Your task to perform on an android device: install app "eBay: The shopping marketplace" Image 0: 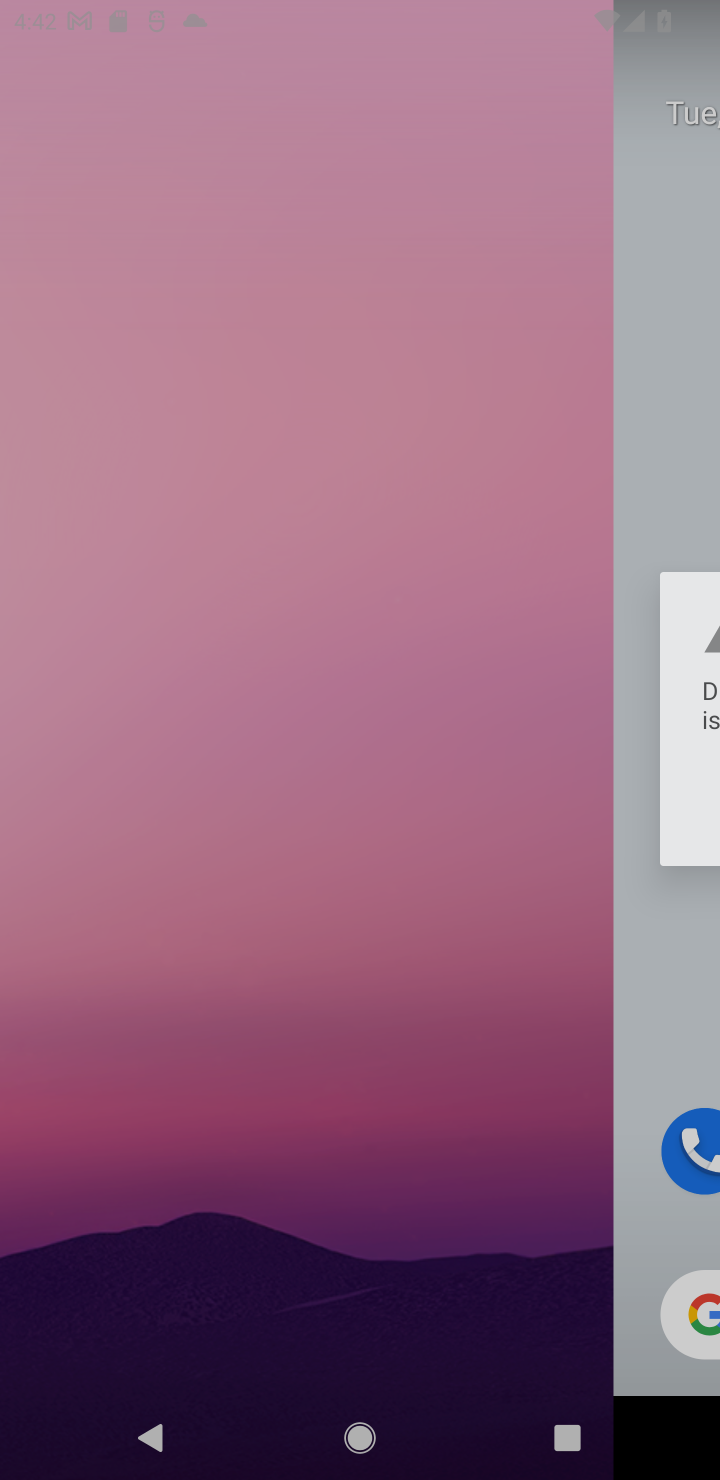
Step 0: press home button
Your task to perform on an android device: install app "eBay: The shopping marketplace" Image 1: 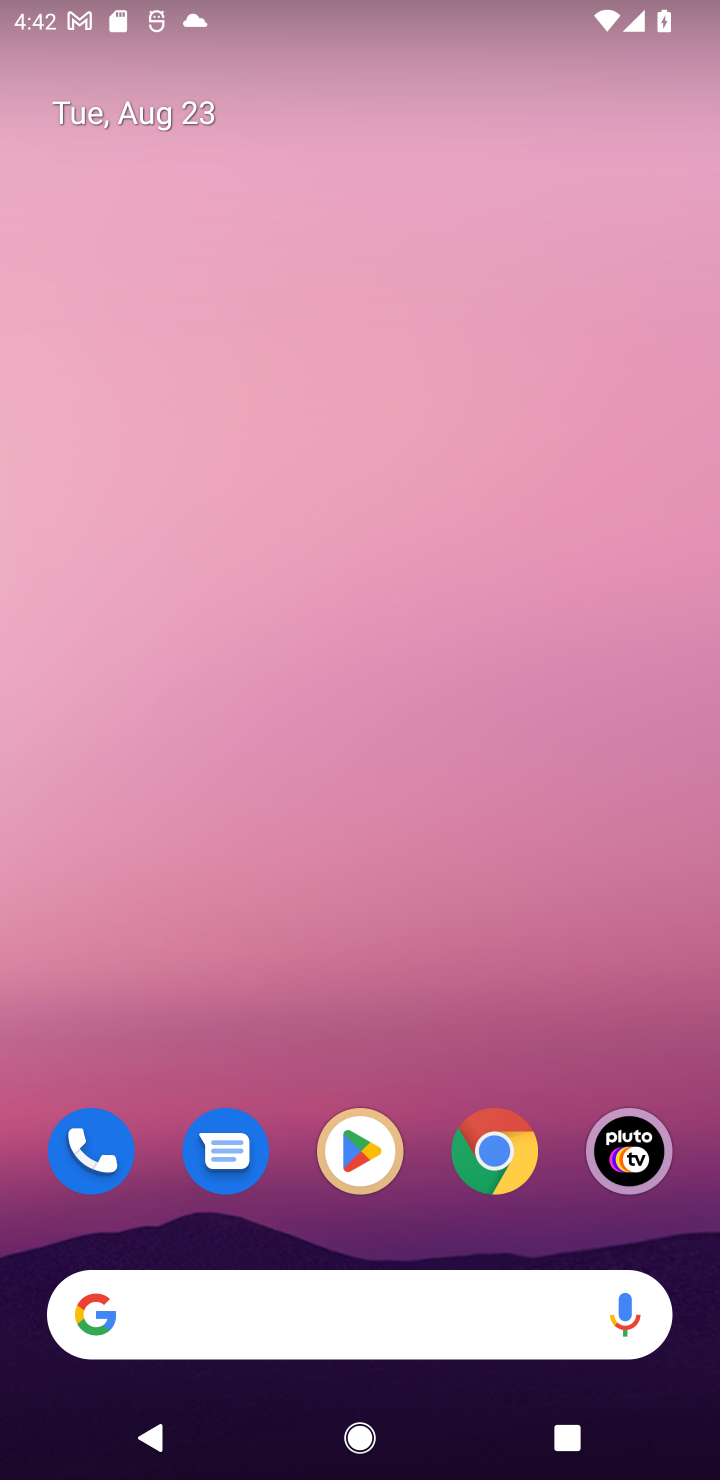
Step 1: click (349, 1137)
Your task to perform on an android device: install app "eBay: The shopping marketplace" Image 2: 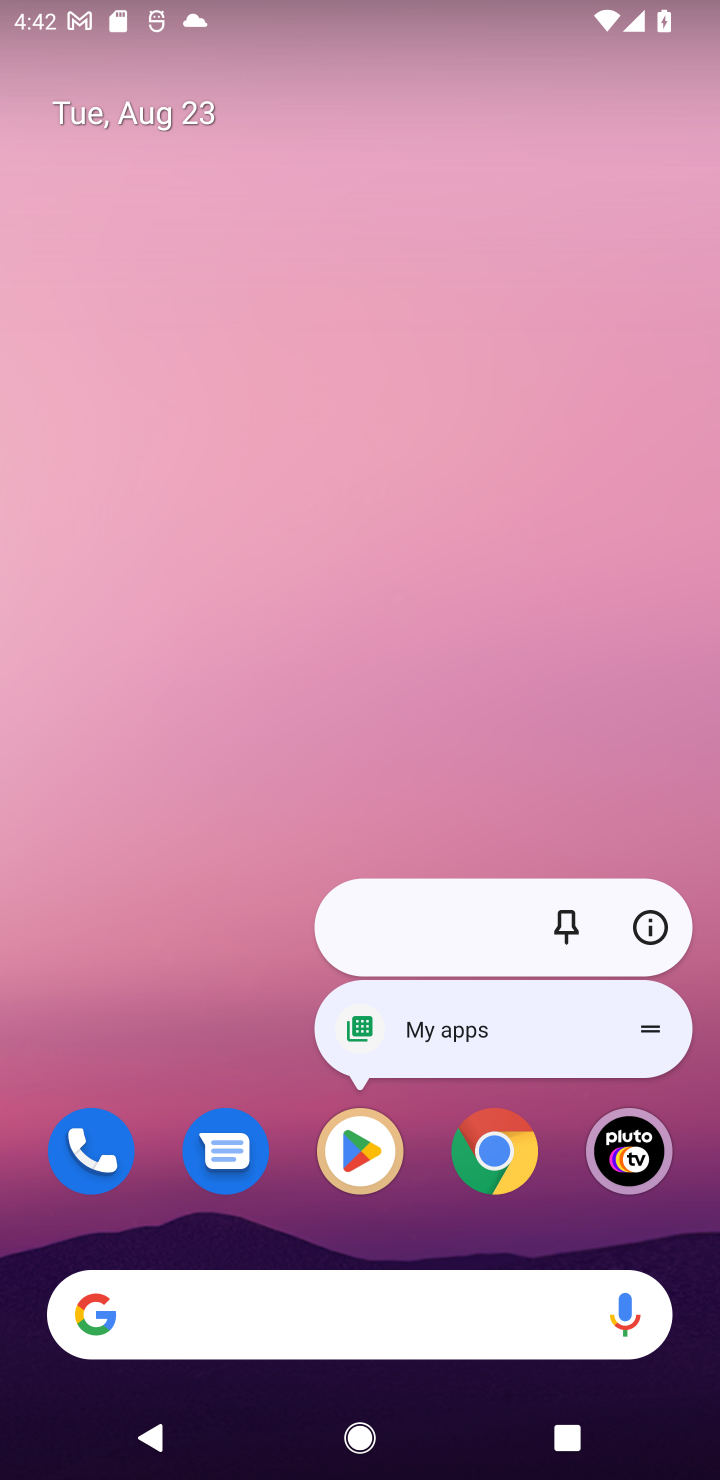
Step 2: click (347, 1157)
Your task to perform on an android device: install app "eBay: The shopping marketplace" Image 3: 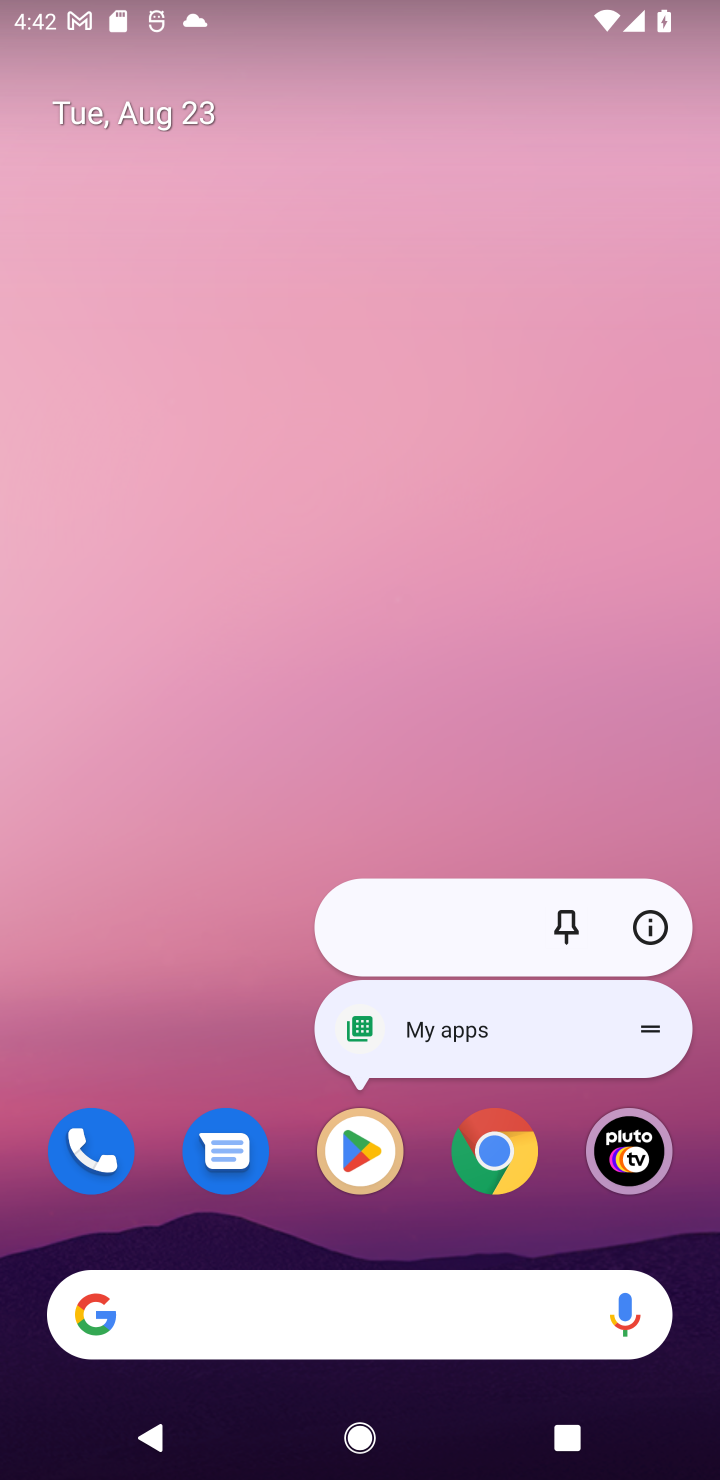
Step 3: click (361, 1148)
Your task to perform on an android device: install app "eBay: The shopping marketplace" Image 4: 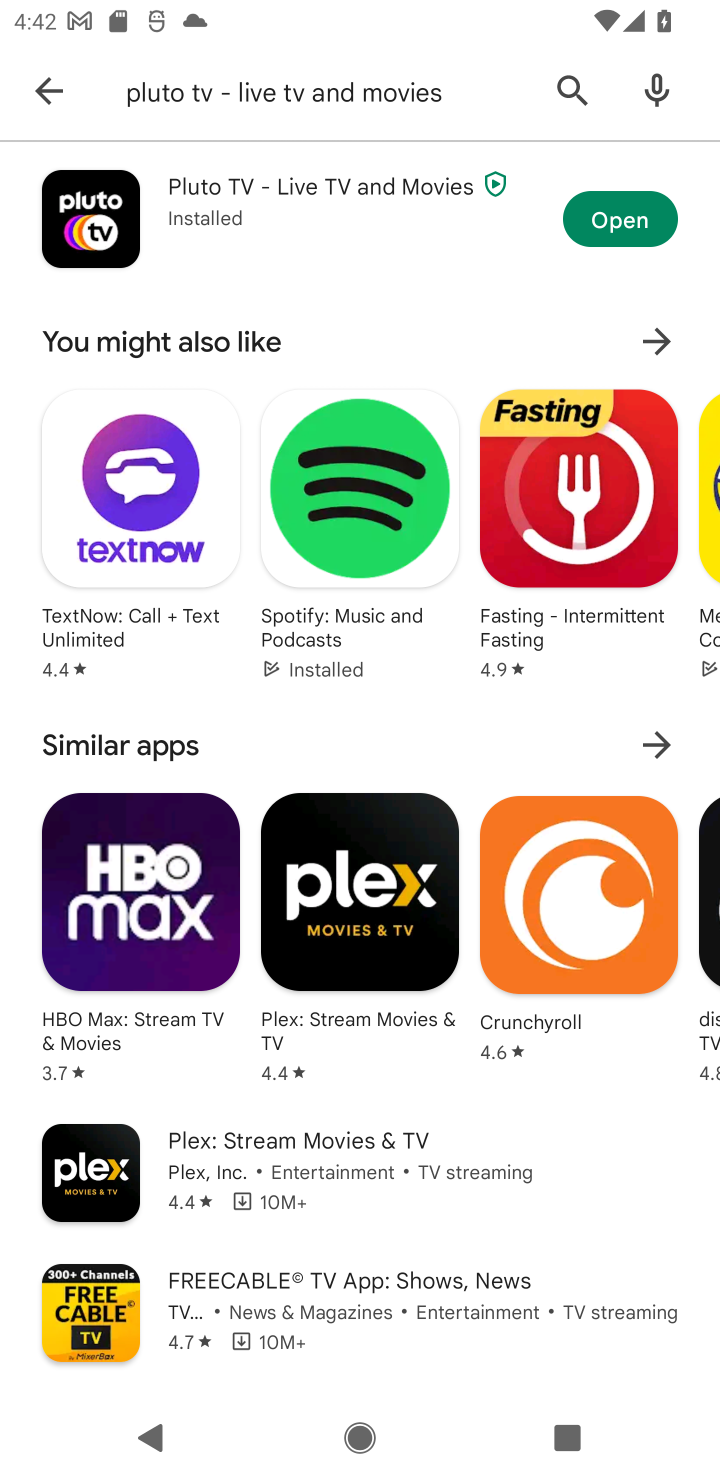
Step 4: click (572, 75)
Your task to perform on an android device: install app "eBay: The shopping marketplace" Image 5: 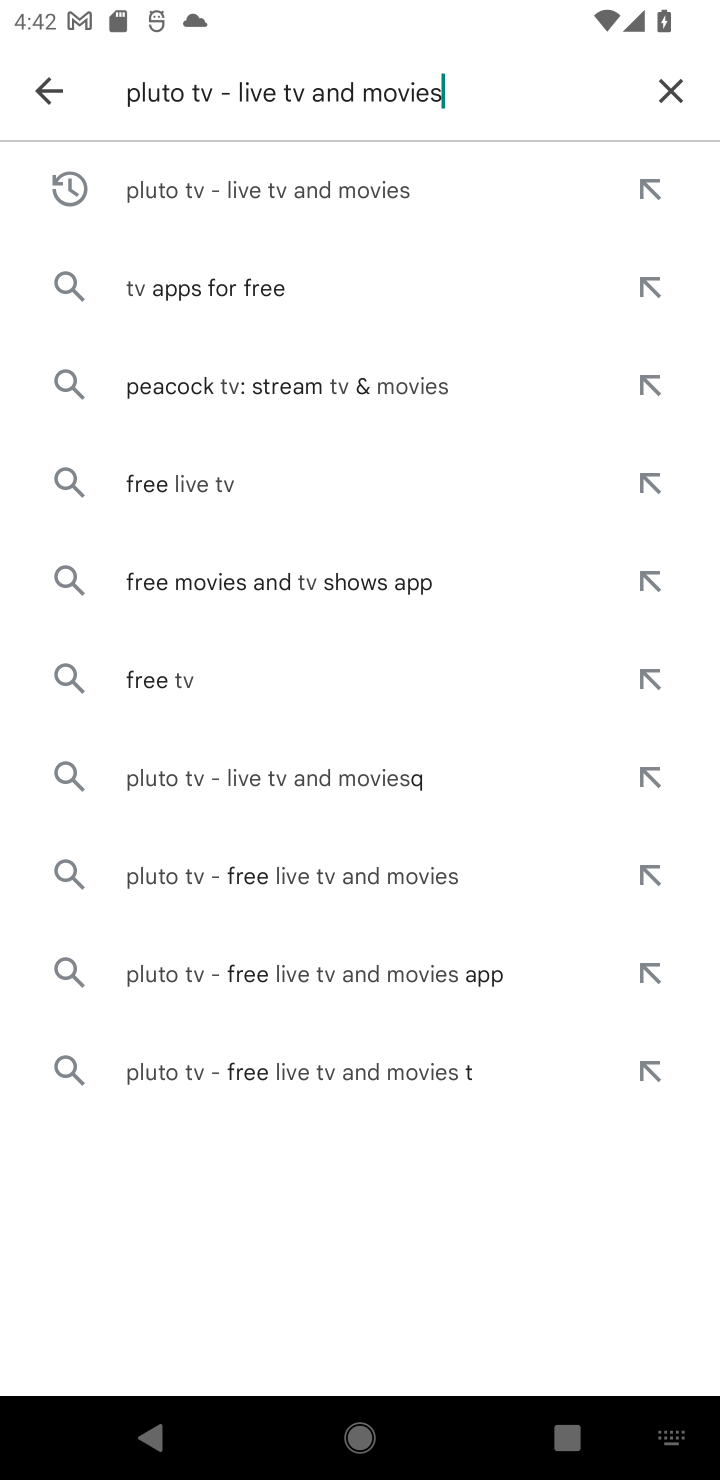
Step 5: click (673, 70)
Your task to perform on an android device: install app "eBay: The shopping marketplace" Image 6: 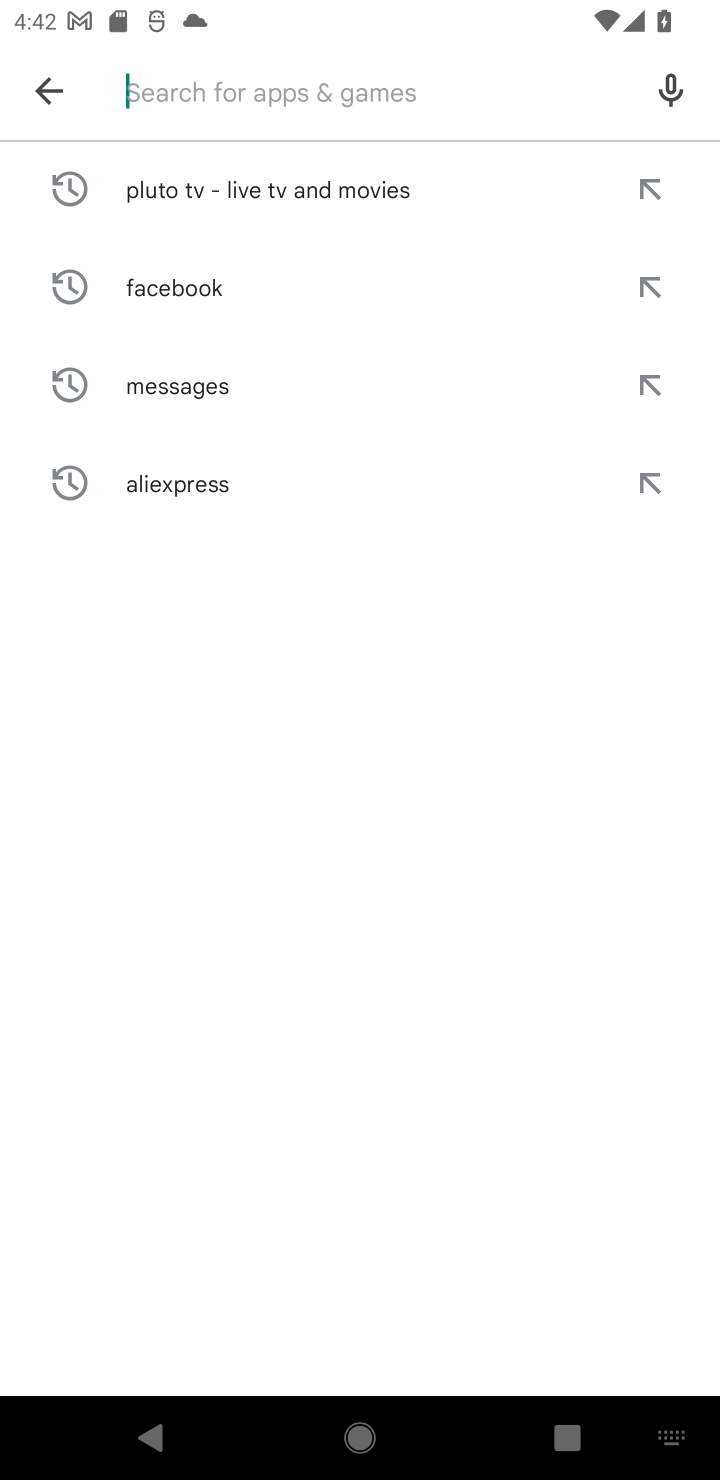
Step 6: type "eBay: The shopping marketplace"
Your task to perform on an android device: install app "eBay: The shopping marketplace" Image 7: 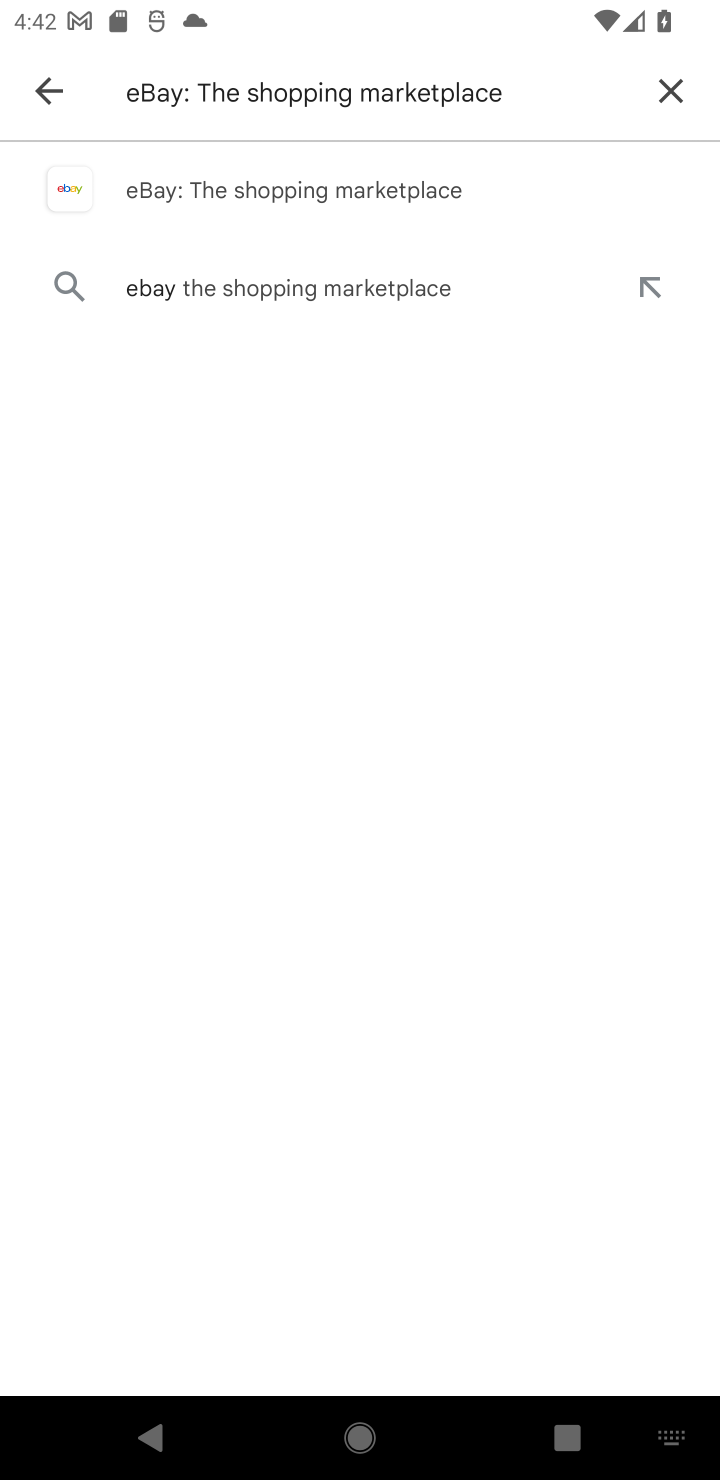
Step 7: click (378, 185)
Your task to perform on an android device: install app "eBay: The shopping marketplace" Image 8: 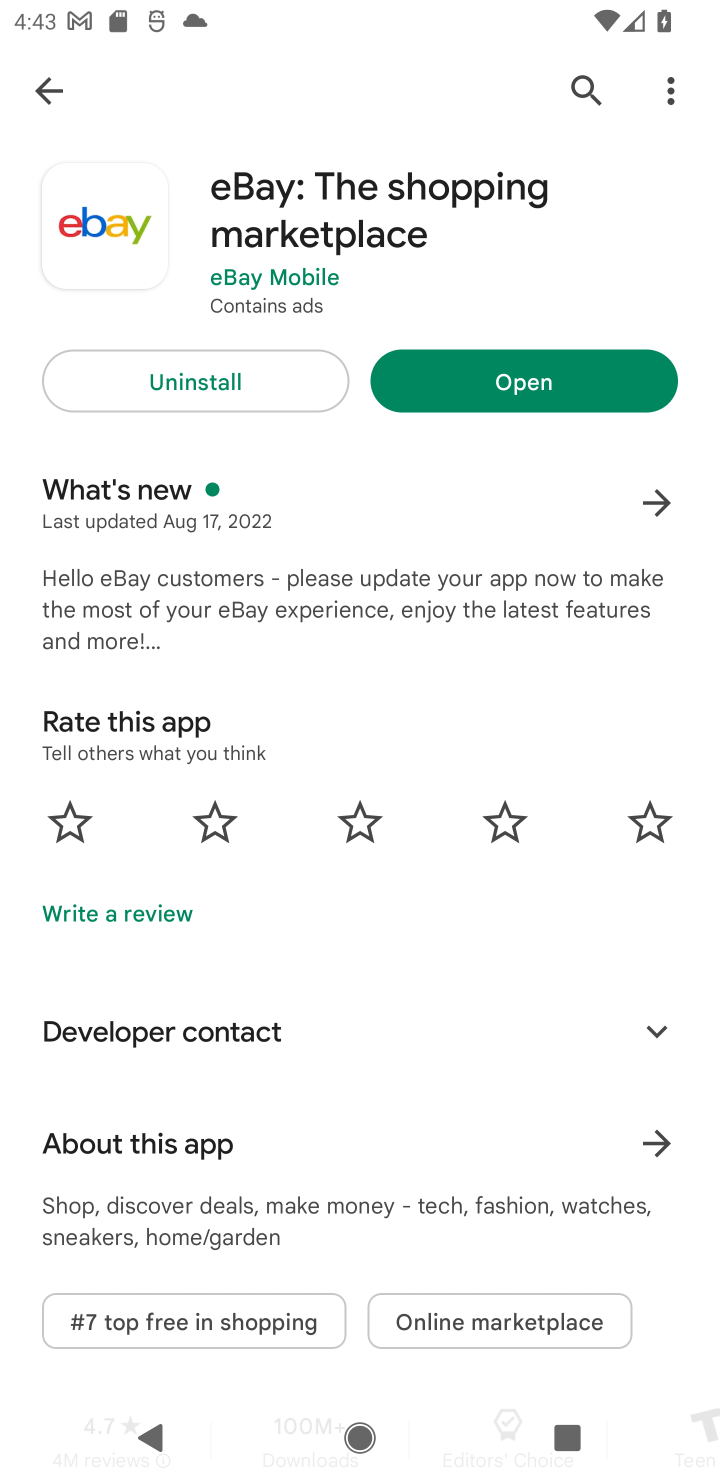
Step 8: click (259, 687)
Your task to perform on an android device: install app "eBay: The shopping marketplace" Image 9: 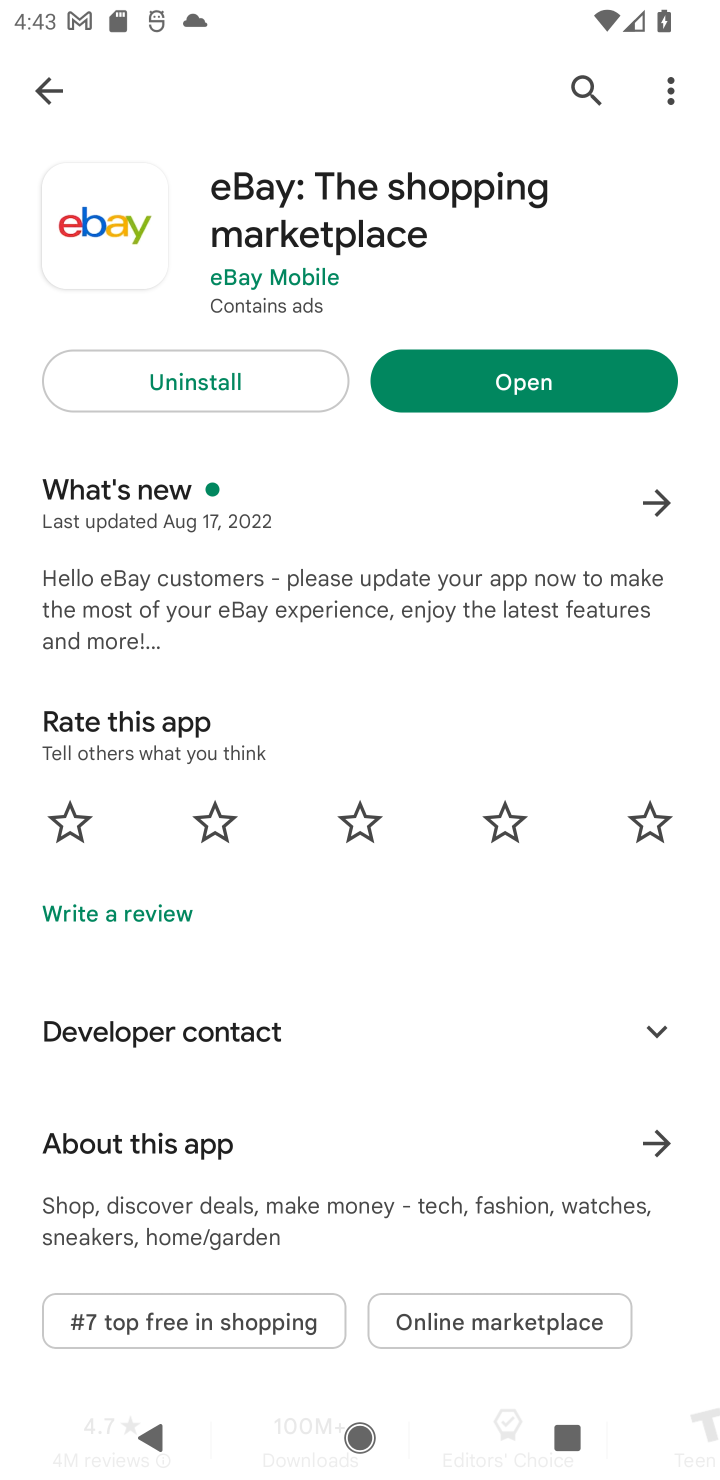
Step 9: task complete